Your task to perform on an android device: Go to Reddit.com Image 0: 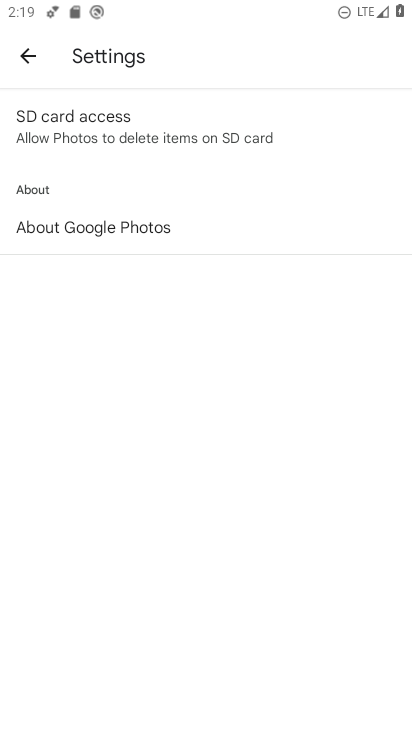
Step 0: press home button
Your task to perform on an android device: Go to Reddit.com Image 1: 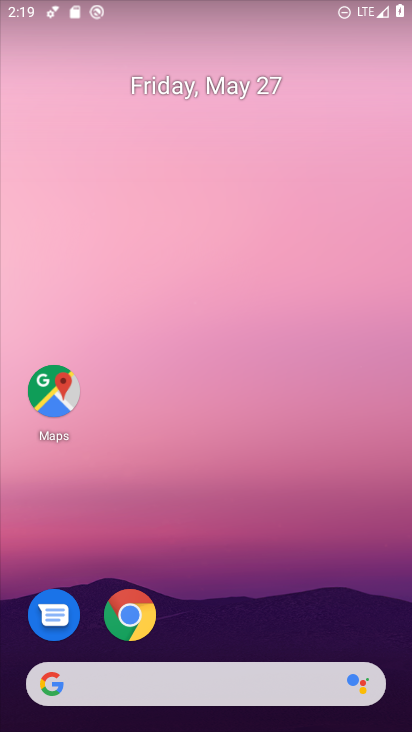
Step 1: drag from (234, 613) to (225, 193)
Your task to perform on an android device: Go to Reddit.com Image 2: 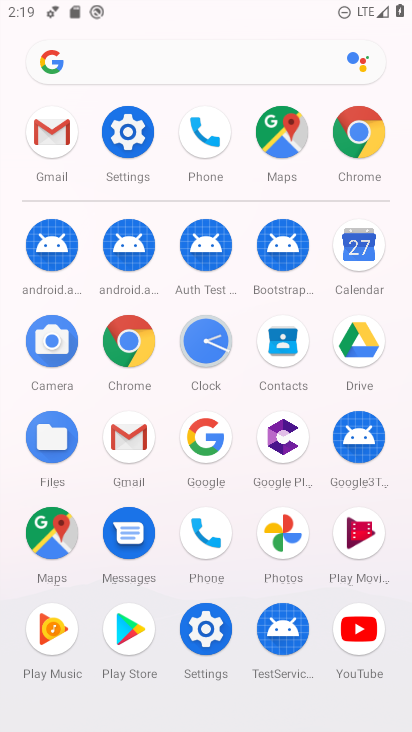
Step 2: click (127, 341)
Your task to perform on an android device: Go to Reddit.com Image 3: 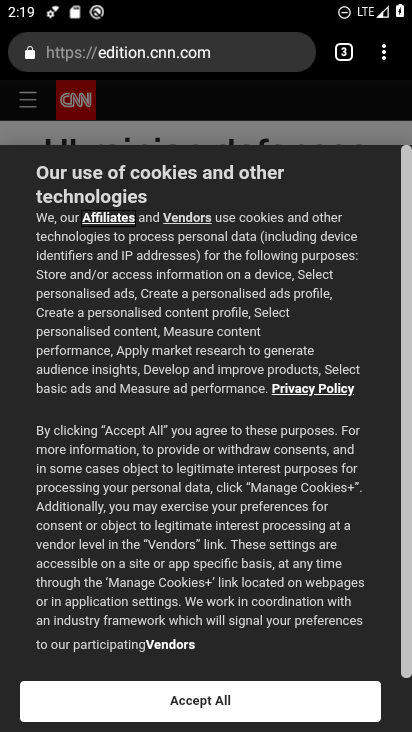
Step 3: click (354, 63)
Your task to perform on an android device: Go to Reddit.com Image 4: 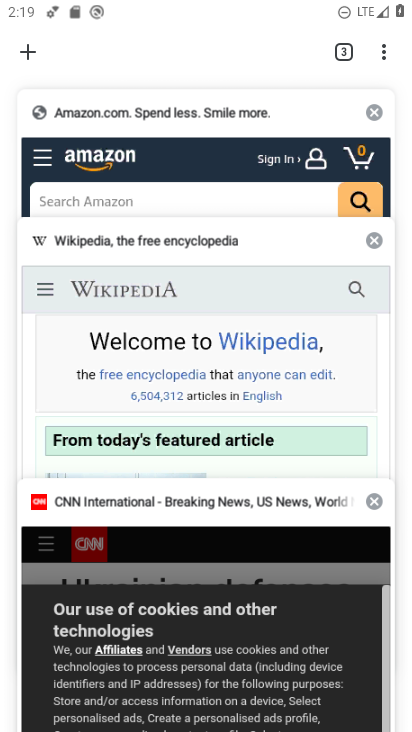
Step 4: click (32, 55)
Your task to perform on an android device: Go to Reddit.com Image 5: 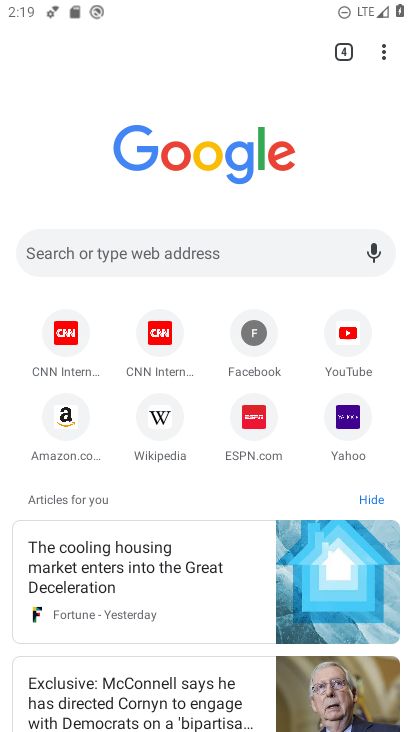
Step 5: click (167, 240)
Your task to perform on an android device: Go to Reddit.com Image 6: 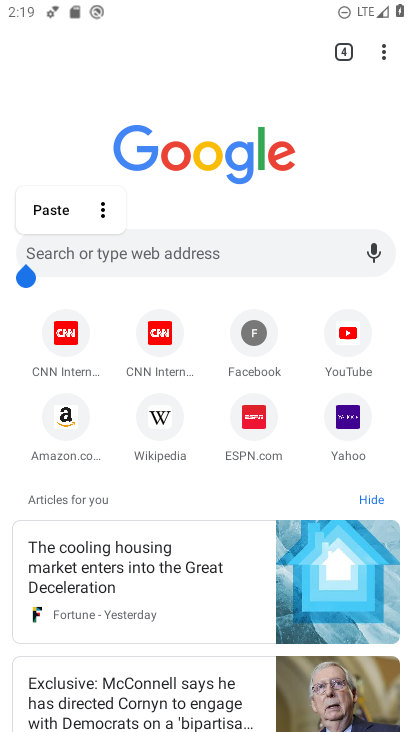
Step 6: click (173, 259)
Your task to perform on an android device: Go to Reddit.com Image 7: 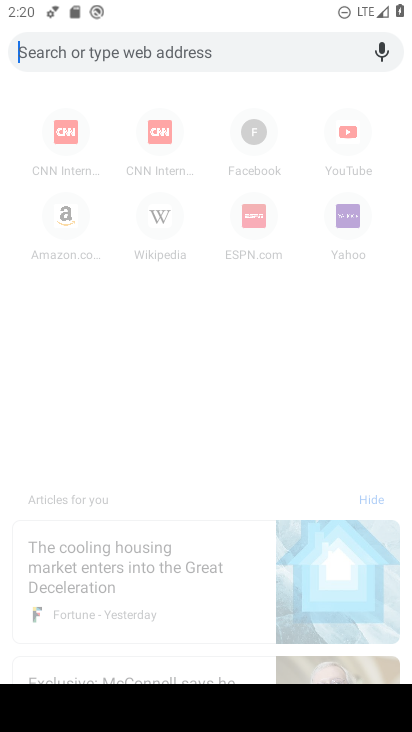
Step 7: type "reddit.com"
Your task to perform on an android device: Go to Reddit.com Image 8: 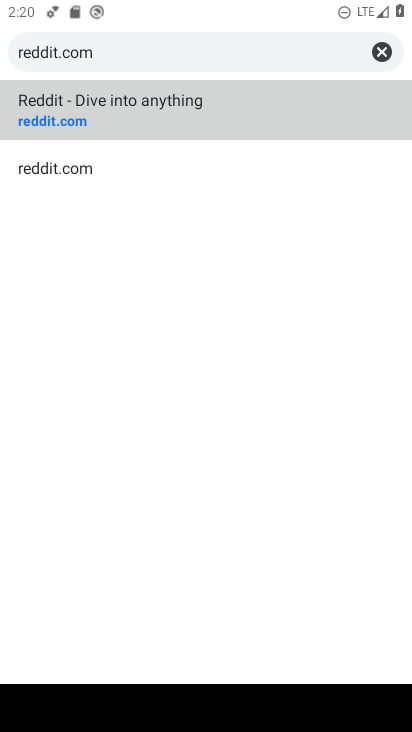
Step 8: click (222, 131)
Your task to perform on an android device: Go to Reddit.com Image 9: 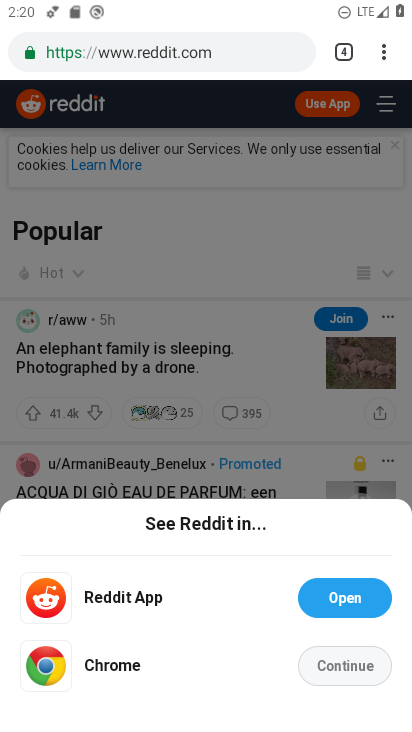
Step 9: click (311, 677)
Your task to perform on an android device: Go to Reddit.com Image 10: 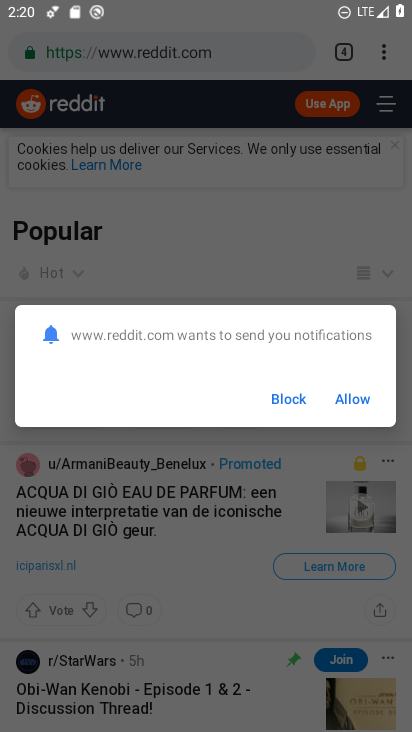
Step 10: click (344, 403)
Your task to perform on an android device: Go to Reddit.com Image 11: 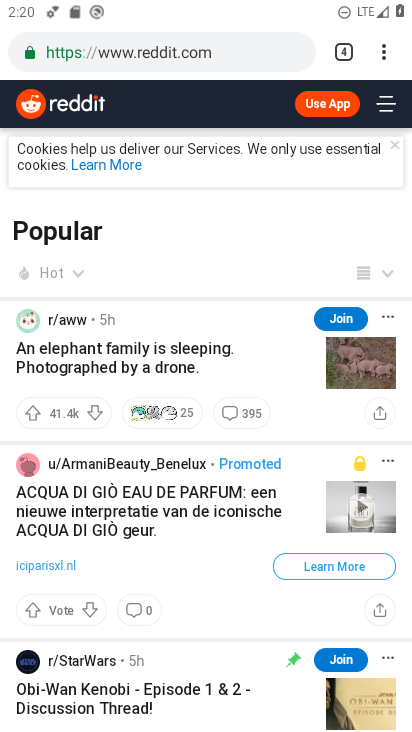
Step 11: task complete